Your task to perform on an android device: turn off smart reply in the gmail app Image 0: 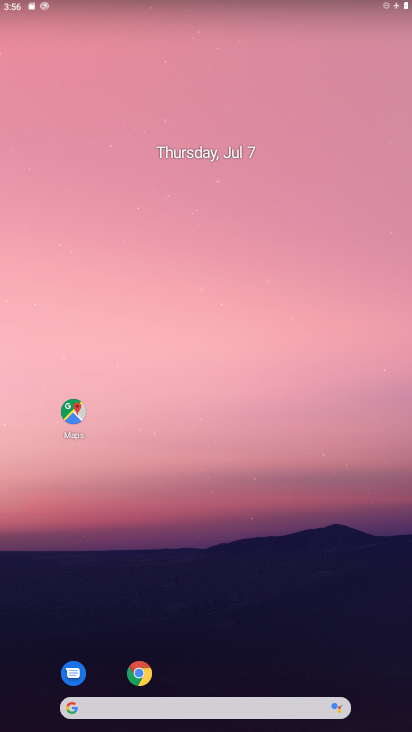
Step 0: press home button
Your task to perform on an android device: turn off smart reply in the gmail app Image 1: 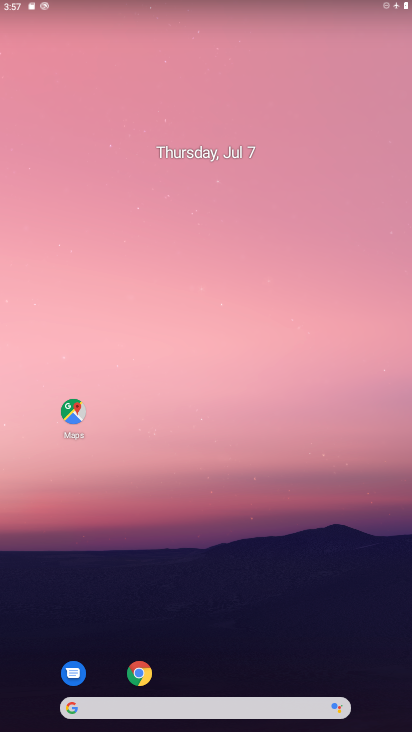
Step 1: drag from (222, 680) to (219, 77)
Your task to perform on an android device: turn off smart reply in the gmail app Image 2: 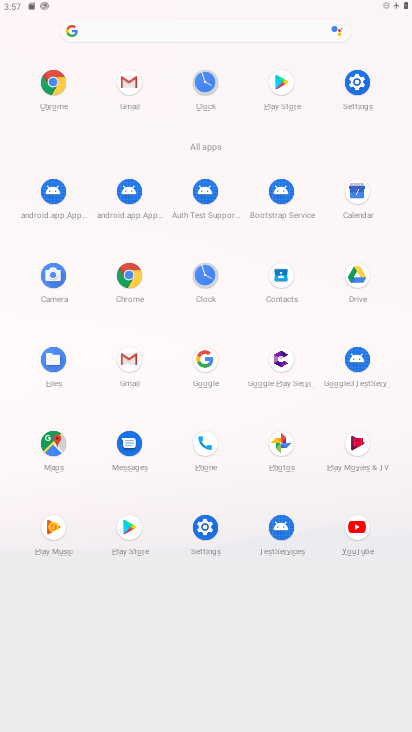
Step 2: click (126, 81)
Your task to perform on an android device: turn off smart reply in the gmail app Image 3: 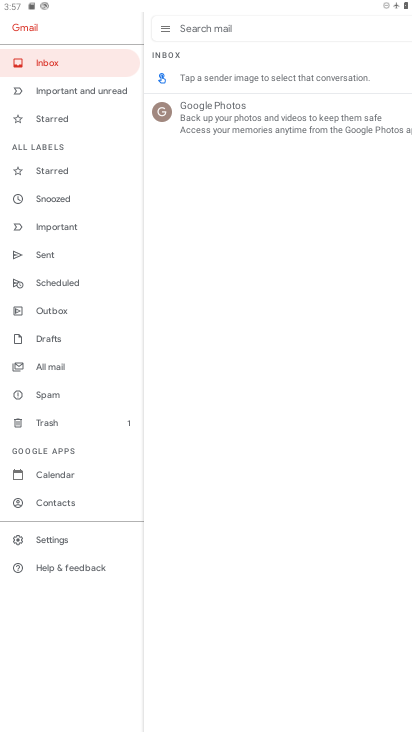
Step 3: click (75, 532)
Your task to perform on an android device: turn off smart reply in the gmail app Image 4: 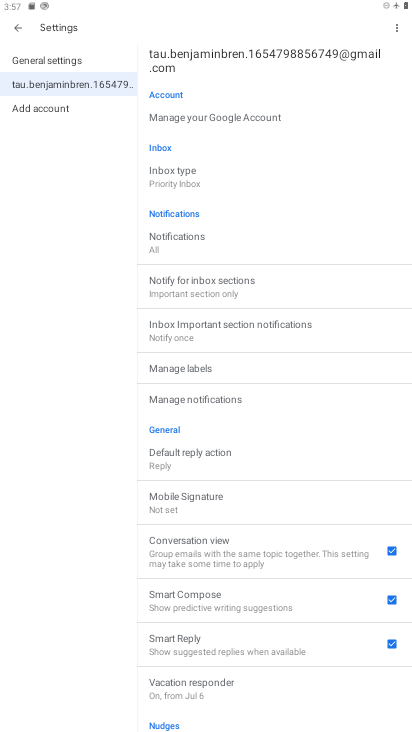
Step 4: click (390, 641)
Your task to perform on an android device: turn off smart reply in the gmail app Image 5: 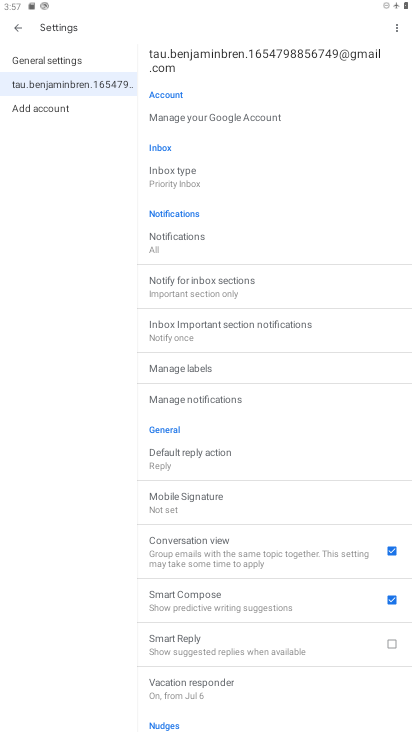
Step 5: task complete